Your task to perform on an android device: check data usage Image 0: 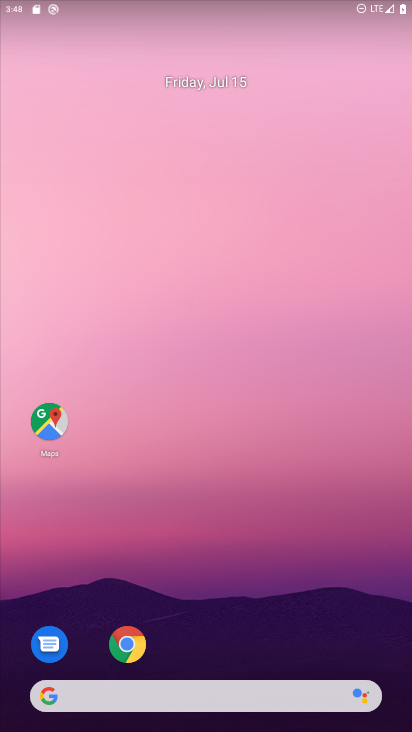
Step 0: drag from (17, 503) to (218, 118)
Your task to perform on an android device: check data usage Image 1: 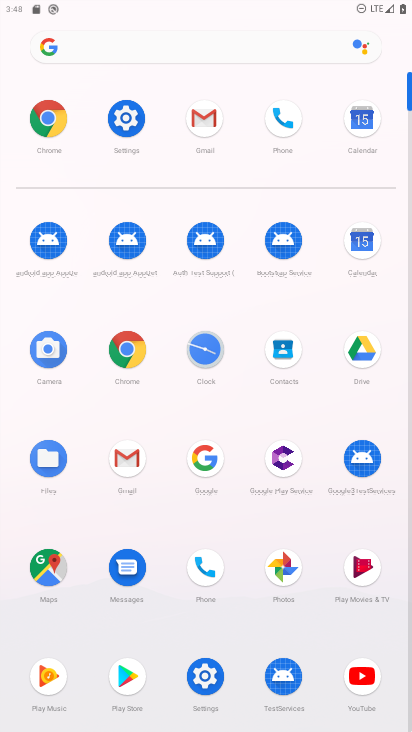
Step 1: click (133, 123)
Your task to perform on an android device: check data usage Image 2: 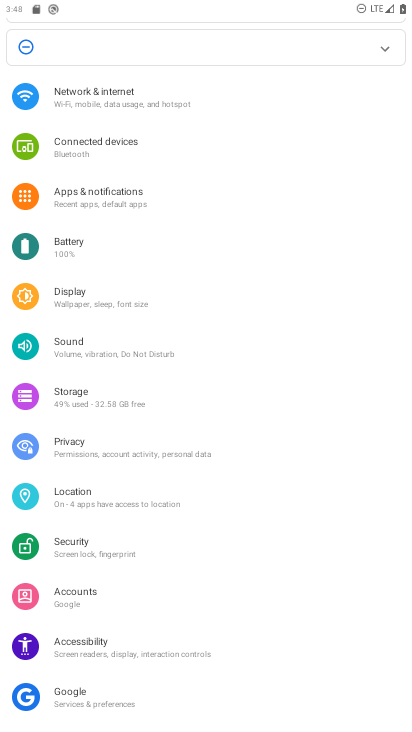
Step 2: click (124, 104)
Your task to perform on an android device: check data usage Image 3: 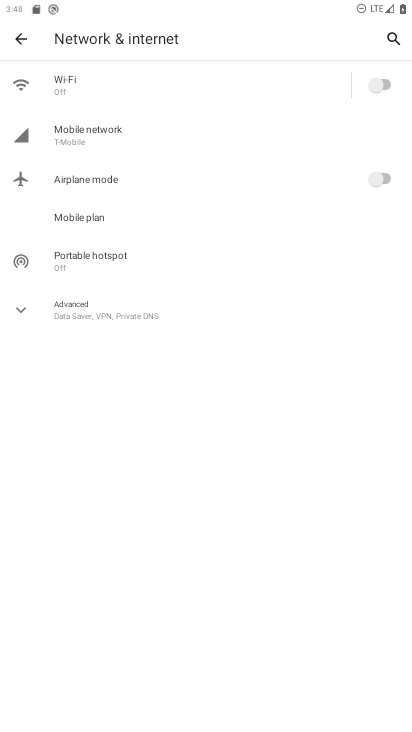
Step 3: click (111, 136)
Your task to perform on an android device: check data usage Image 4: 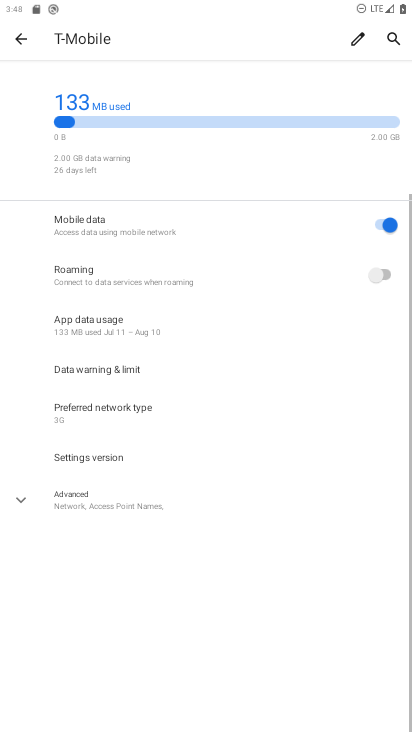
Step 4: click (120, 114)
Your task to perform on an android device: check data usage Image 5: 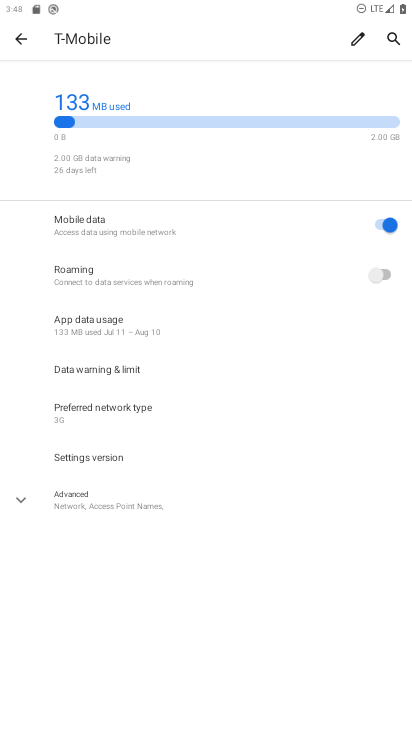
Step 5: task complete